Your task to perform on an android device: change the upload size in google photos Image 0: 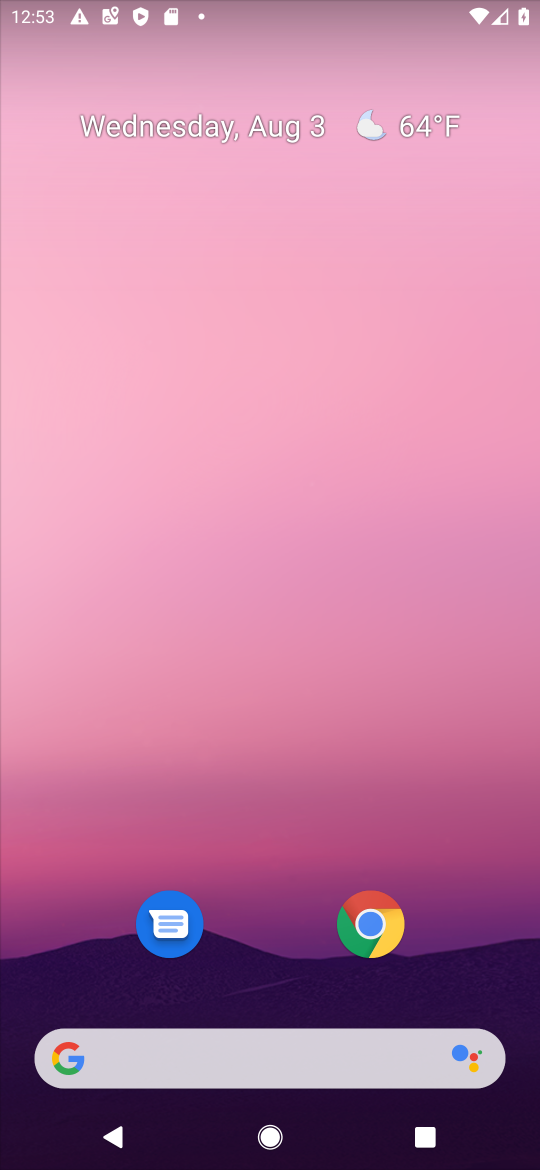
Step 0: drag from (393, 74) to (4, 282)
Your task to perform on an android device: change the upload size in google photos Image 1: 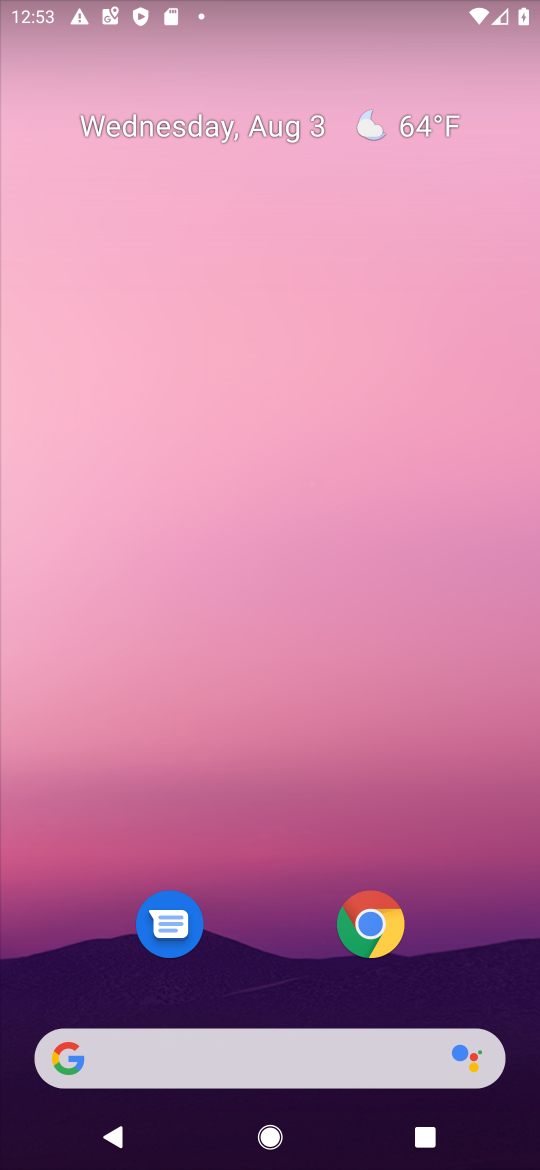
Step 1: drag from (286, 567) to (339, 36)
Your task to perform on an android device: change the upload size in google photos Image 2: 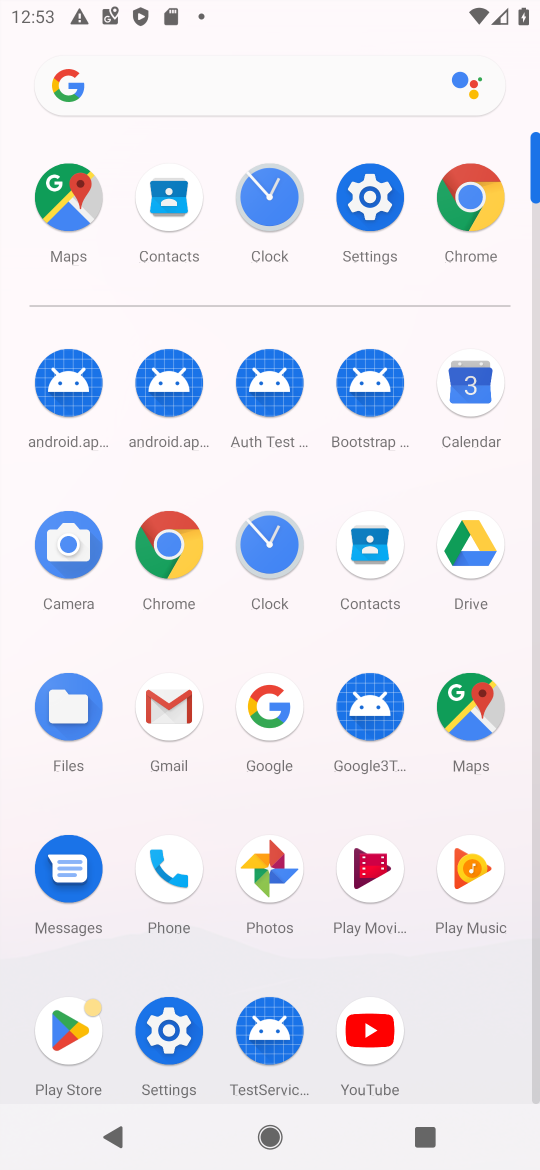
Step 2: click (224, 853)
Your task to perform on an android device: change the upload size in google photos Image 3: 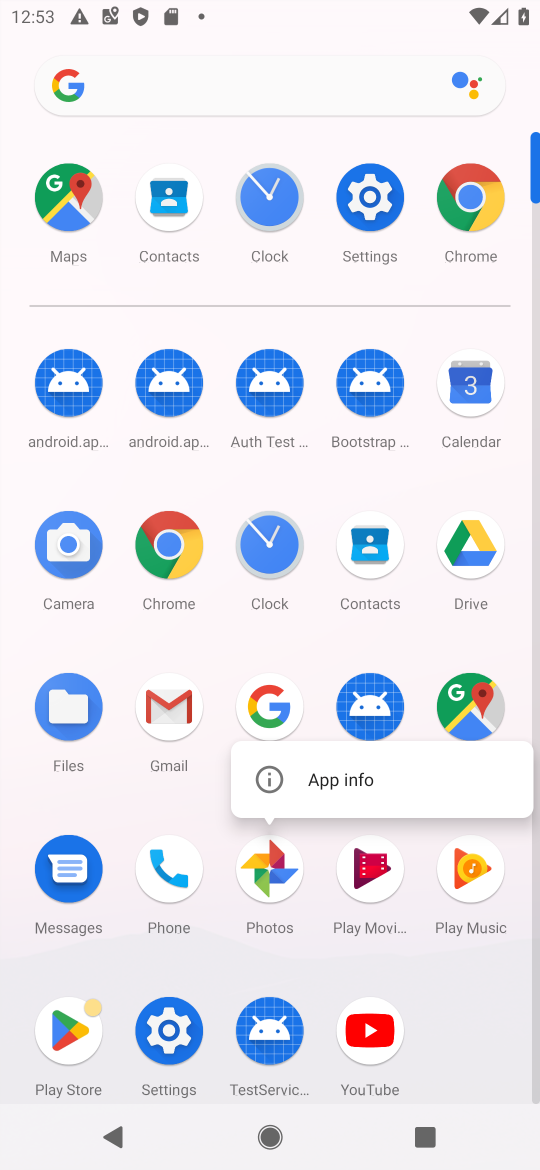
Step 3: click (278, 867)
Your task to perform on an android device: change the upload size in google photos Image 4: 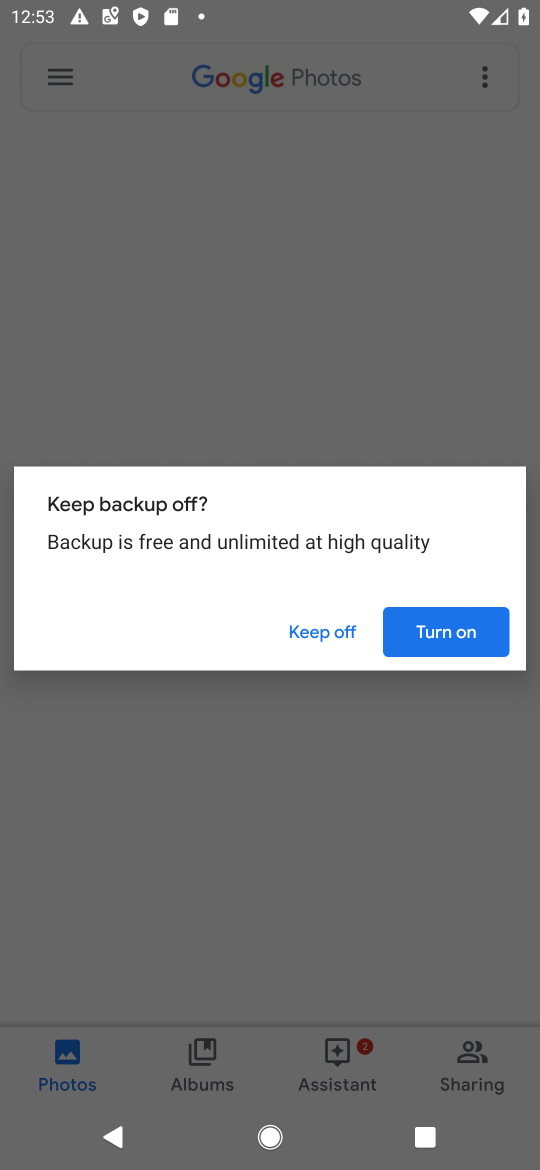
Step 4: click (321, 653)
Your task to perform on an android device: change the upload size in google photos Image 5: 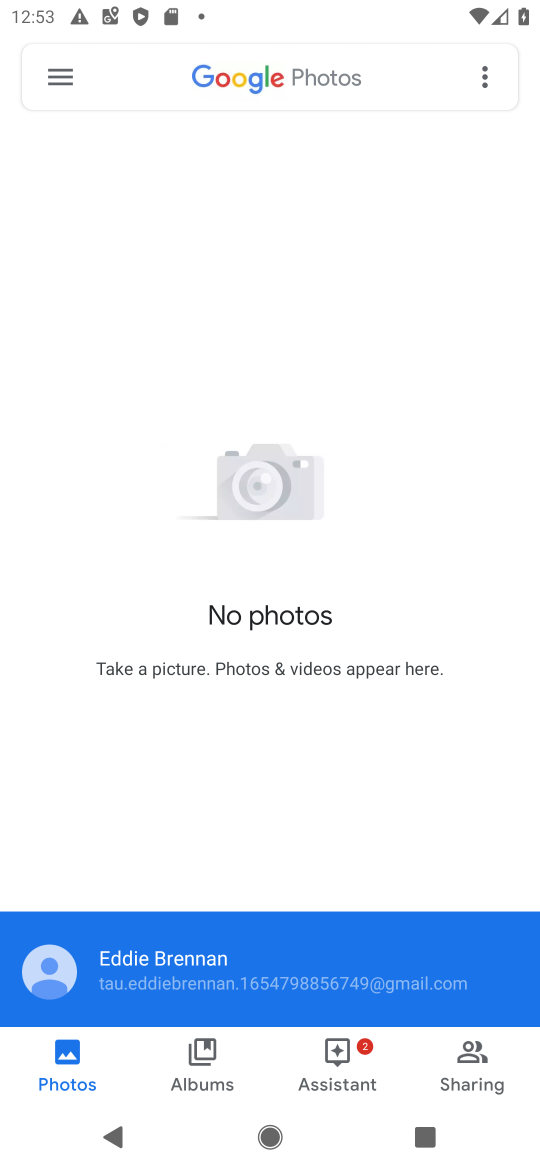
Step 5: click (18, 69)
Your task to perform on an android device: change the upload size in google photos Image 6: 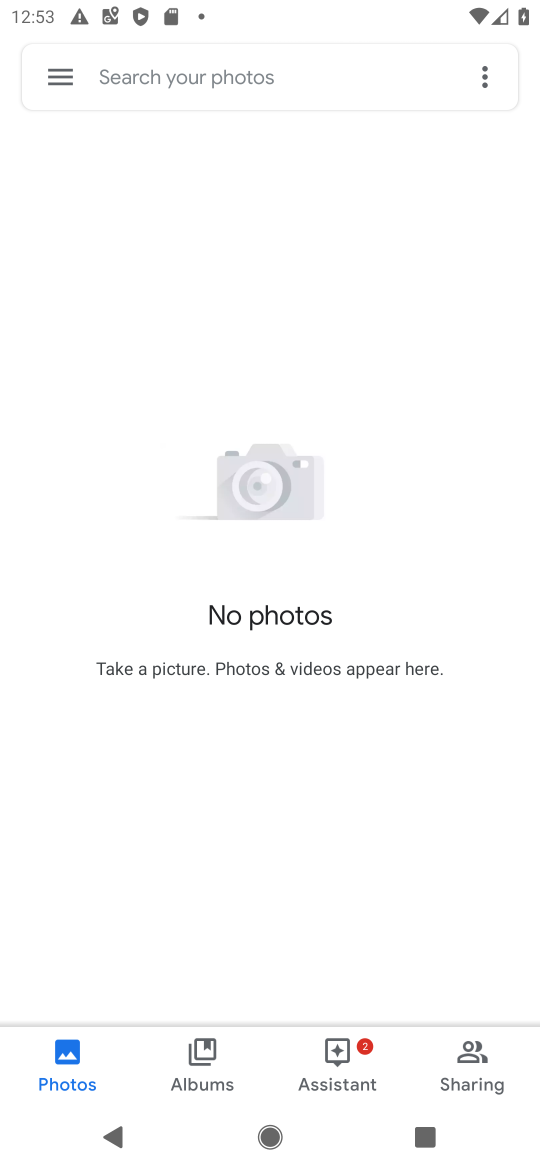
Step 6: click (51, 86)
Your task to perform on an android device: change the upload size in google photos Image 7: 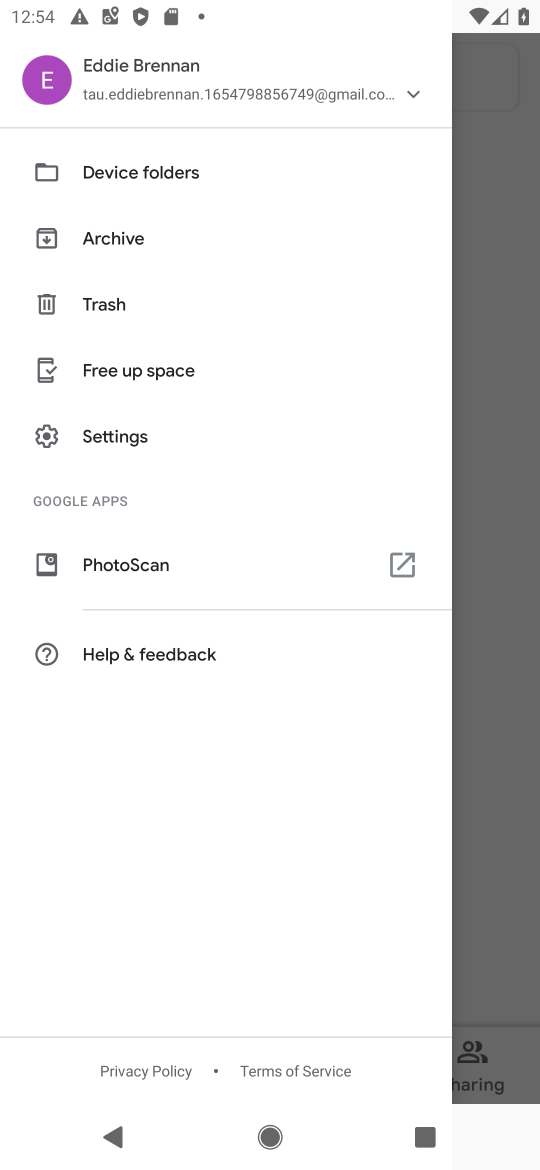
Step 7: click (94, 426)
Your task to perform on an android device: change the upload size in google photos Image 8: 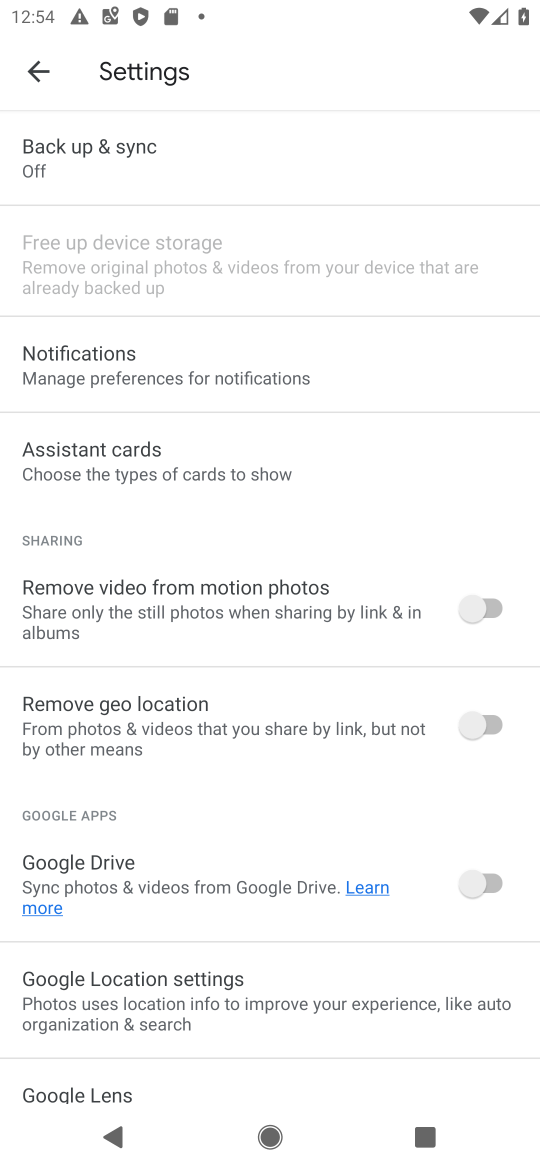
Step 8: click (143, 145)
Your task to perform on an android device: change the upload size in google photos Image 9: 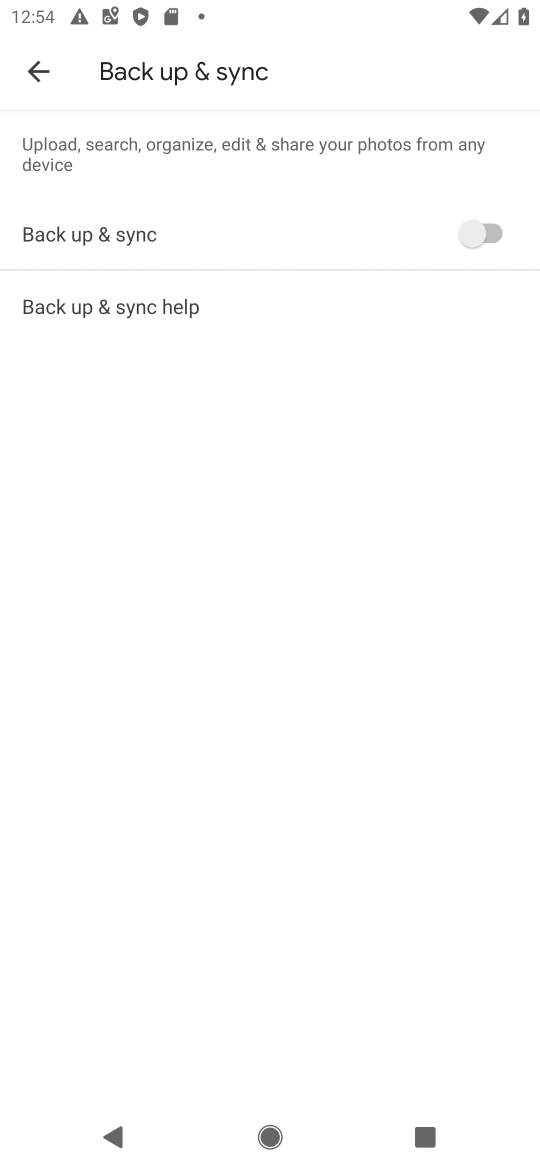
Step 9: click (479, 232)
Your task to perform on an android device: change the upload size in google photos Image 10: 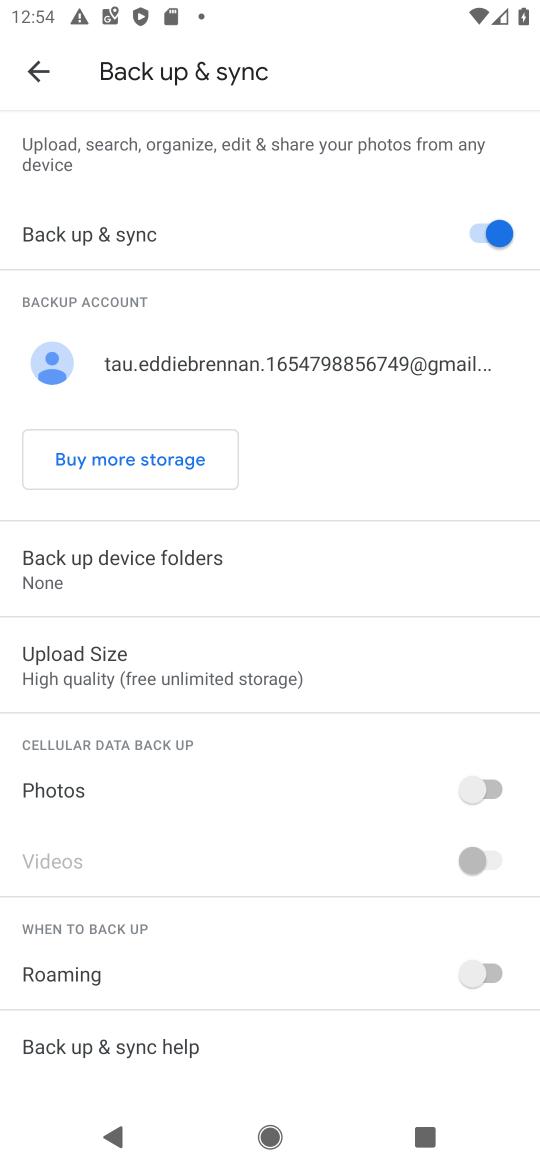
Step 10: click (164, 674)
Your task to perform on an android device: change the upload size in google photos Image 11: 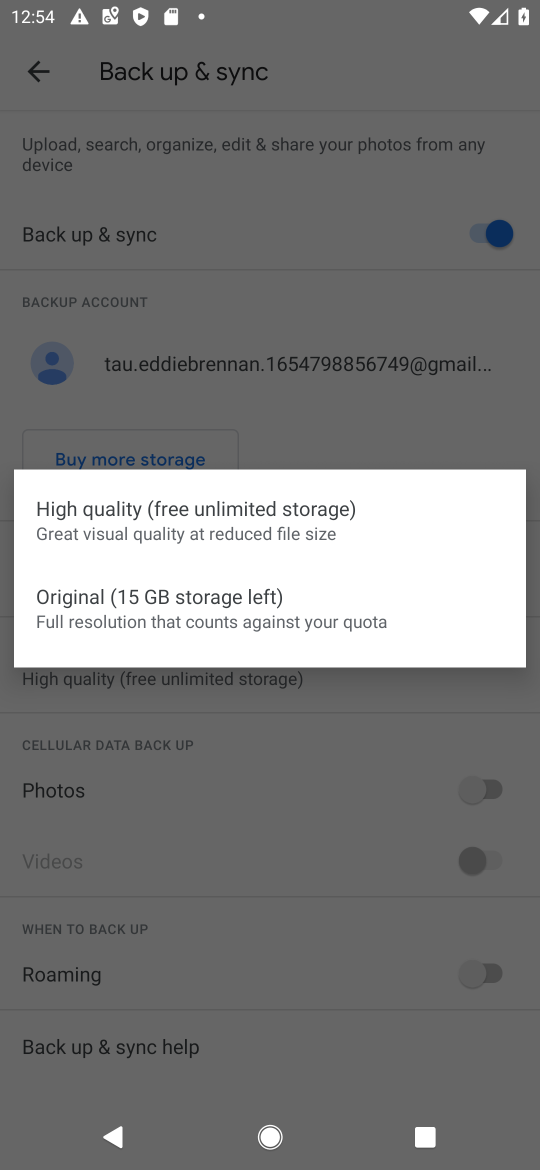
Step 11: click (113, 610)
Your task to perform on an android device: change the upload size in google photos Image 12: 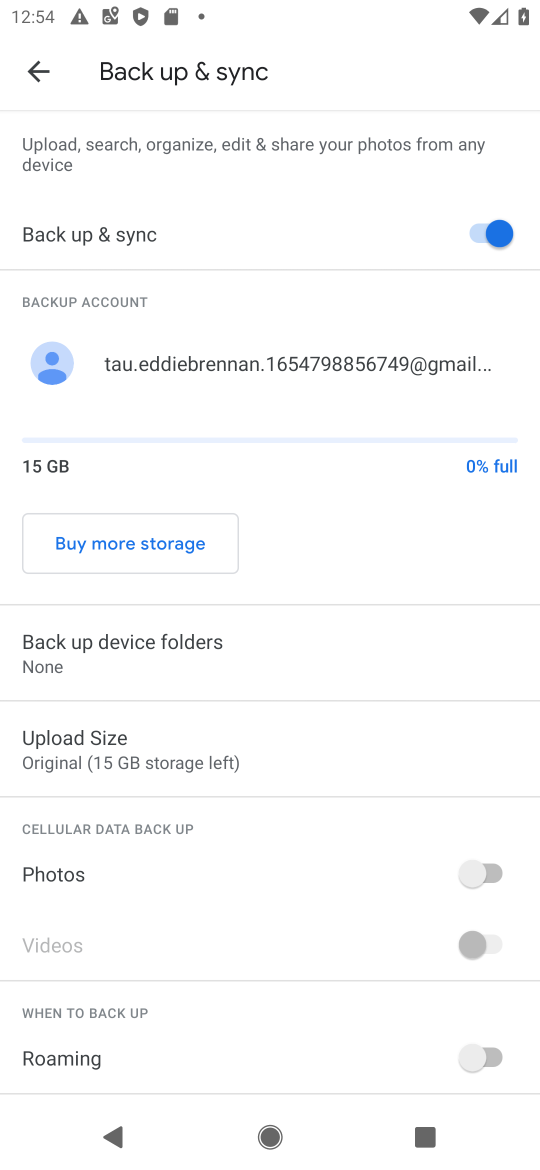
Step 12: task complete